Your task to perform on an android device: uninstall "Google Home" Image 0: 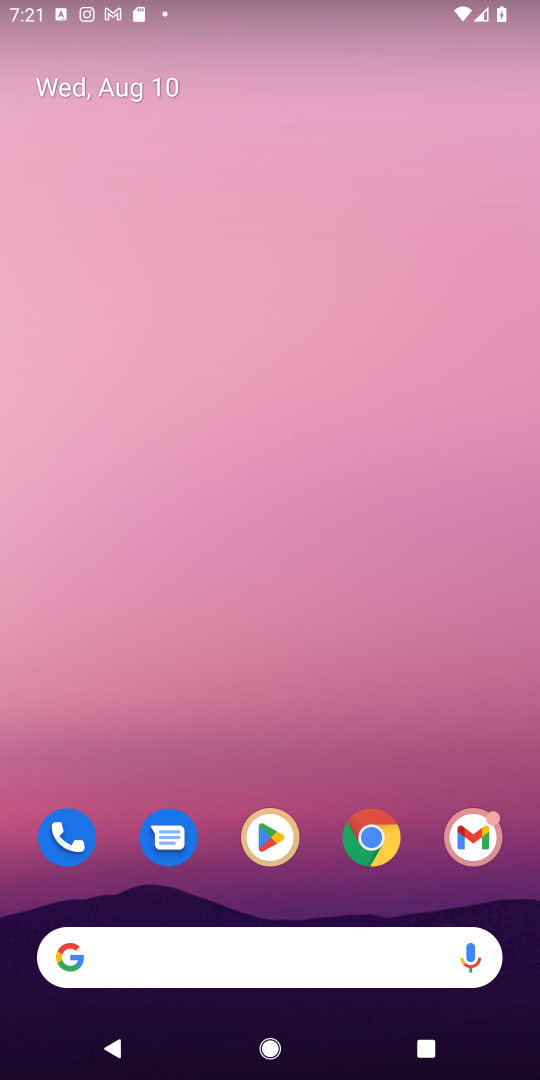
Step 0: click (276, 847)
Your task to perform on an android device: uninstall "Google Home" Image 1: 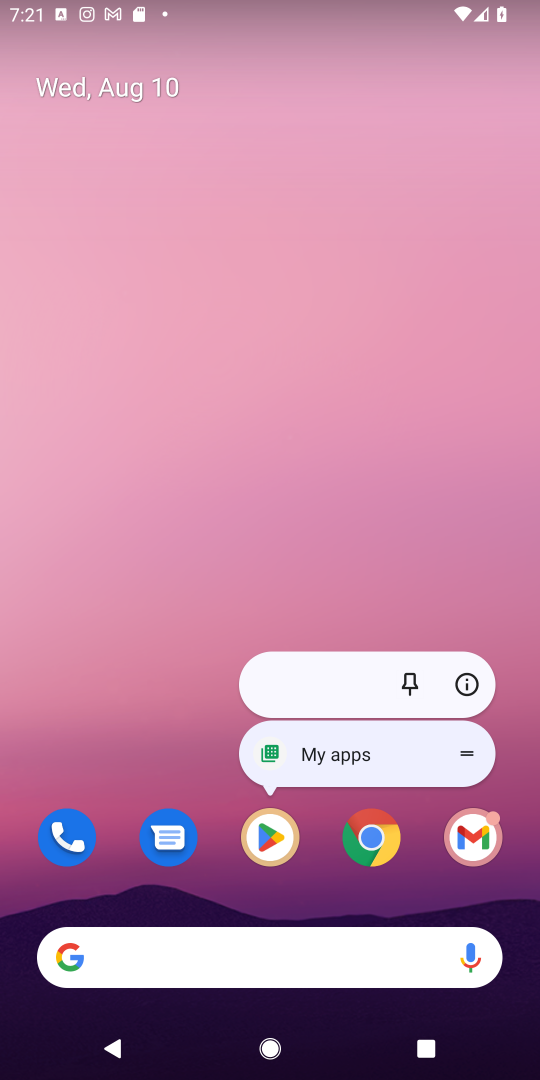
Step 1: click (274, 842)
Your task to perform on an android device: uninstall "Google Home" Image 2: 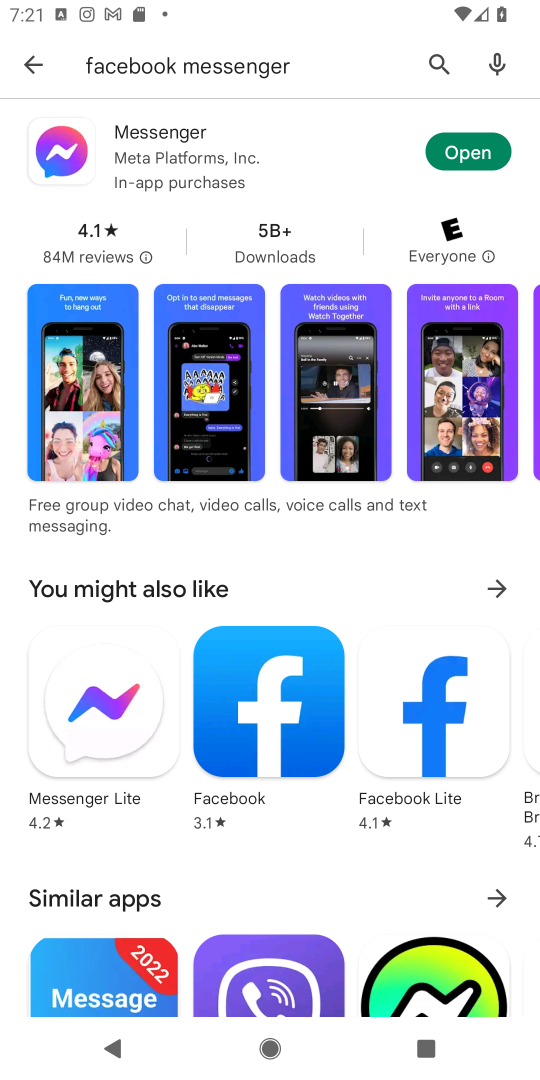
Step 2: click (435, 58)
Your task to perform on an android device: uninstall "Google Home" Image 3: 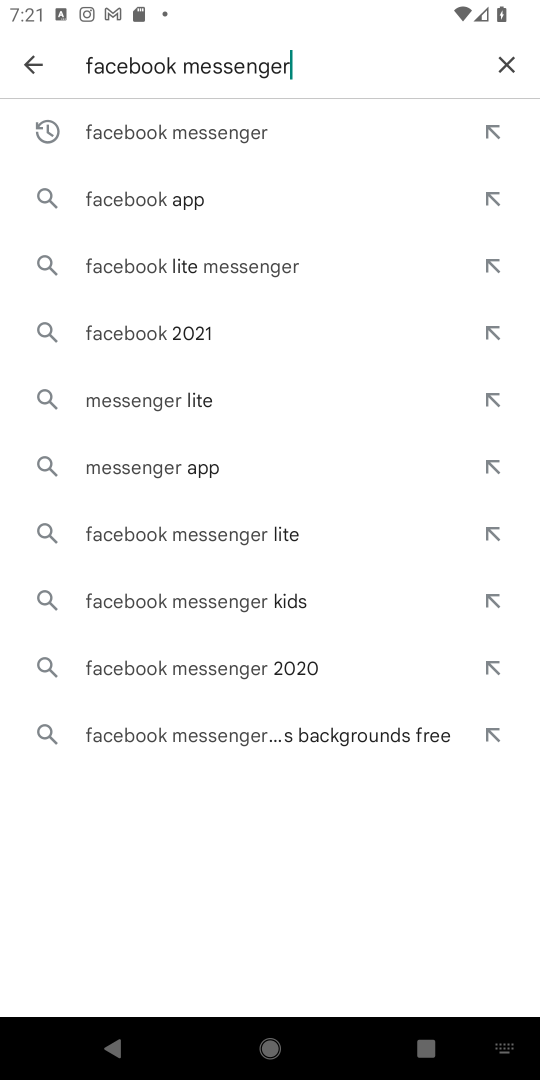
Step 3: click (504, 62)
Your task to perform on an android device: uninstall "Google Home" Image 4: 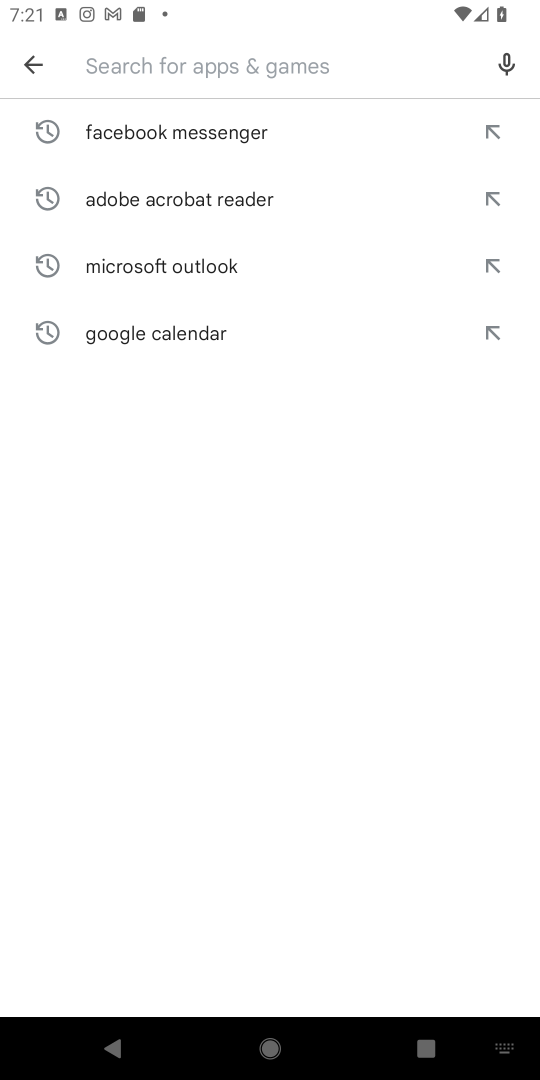
Step 4: type "Google Home"
Your task to perform on an android device: uninstall "Google Home" Image 5: 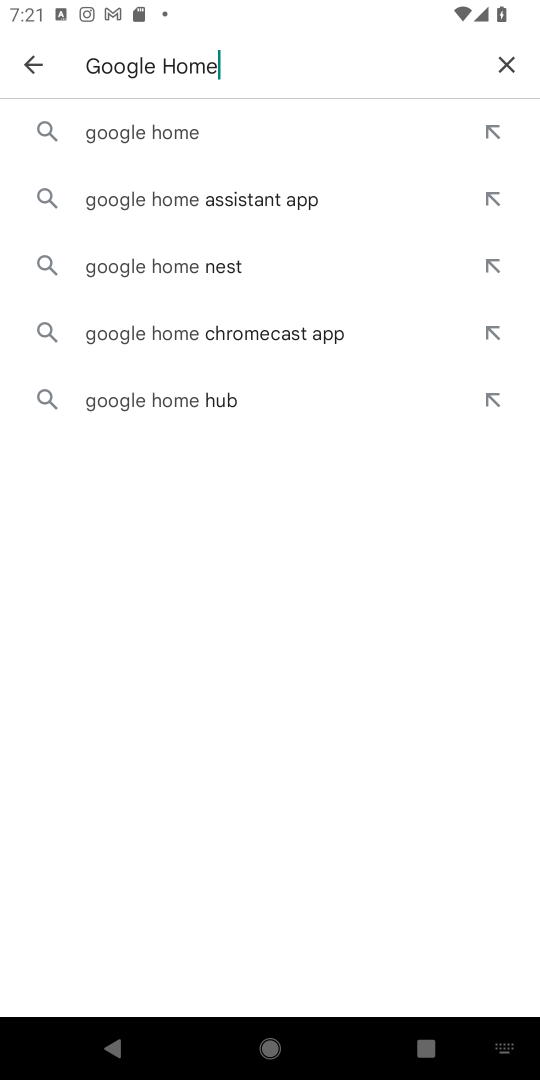
Step 5: click (156, 134)
Your task to perform on an android device: uninstall "Google Home" Image 6: 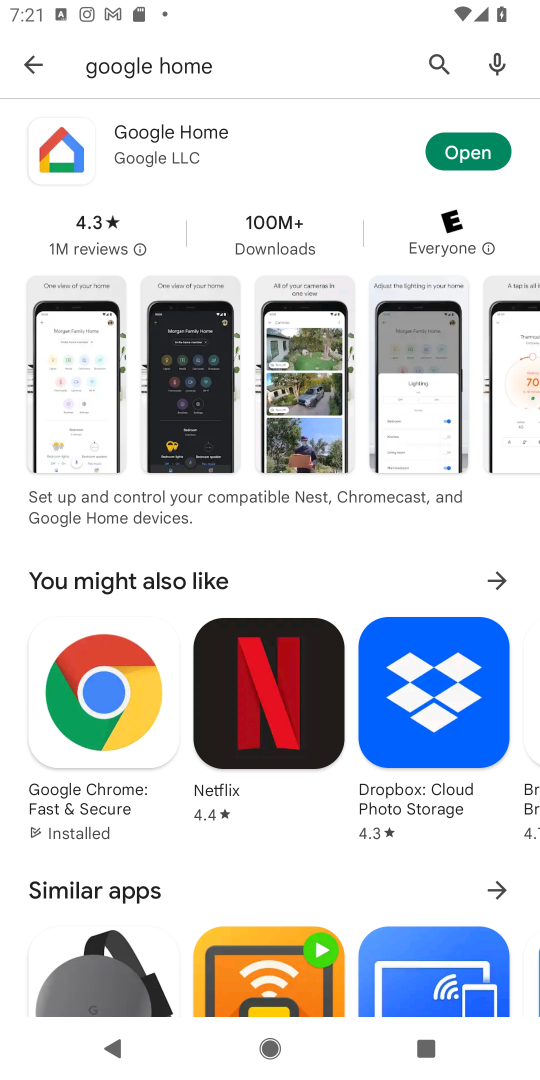
Step 6: click (150, 130)
Your task to perform on an android device: uninstall "Google Home" Image 7: 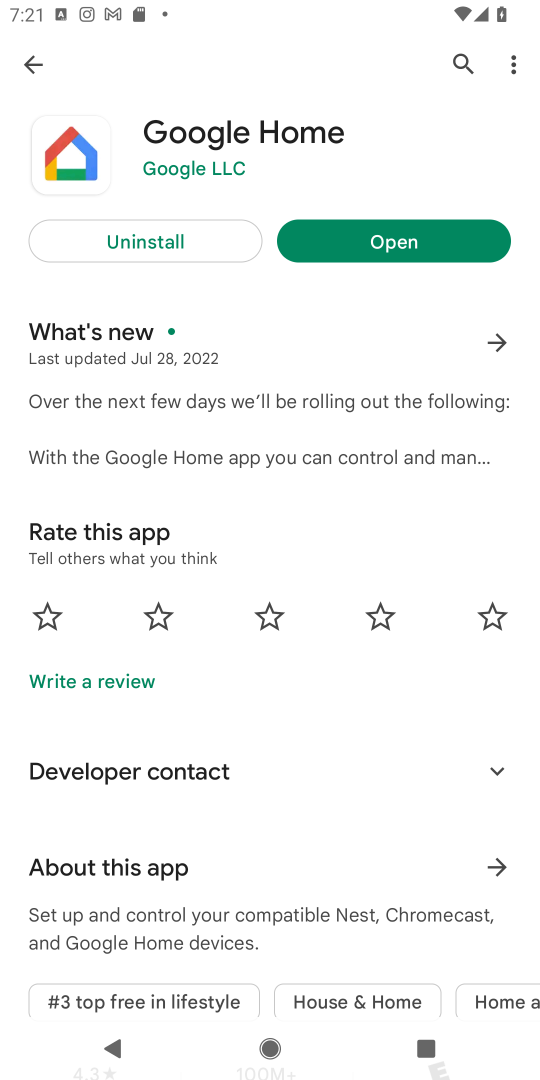
Step 7: click (192, 245)
Your task to perform on an android device: uninstall "Google Home" Image 8: 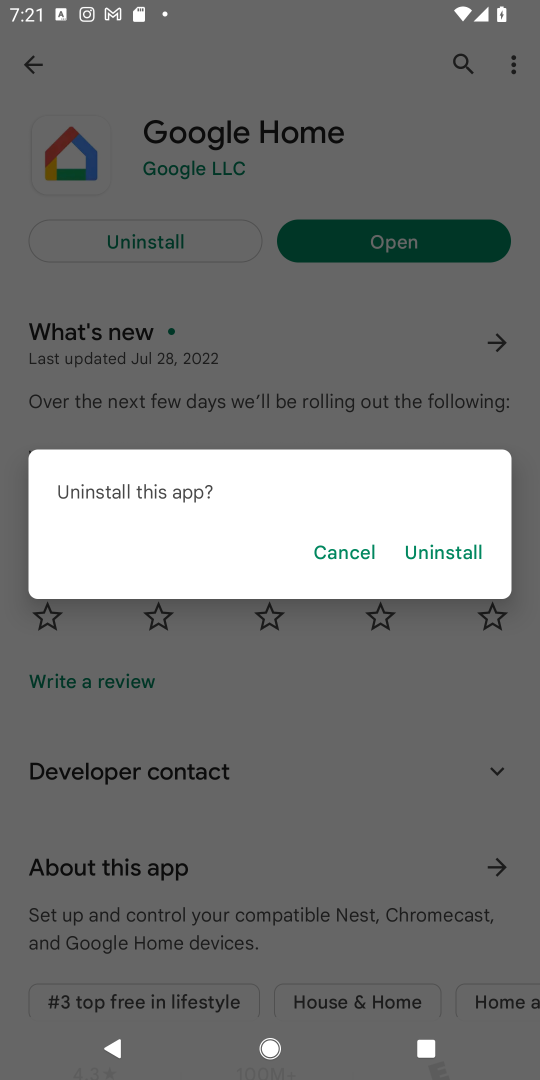
Step 8: click (436, 552)
Your task to perform on an android device: uninstall "Google Home" Image 9: 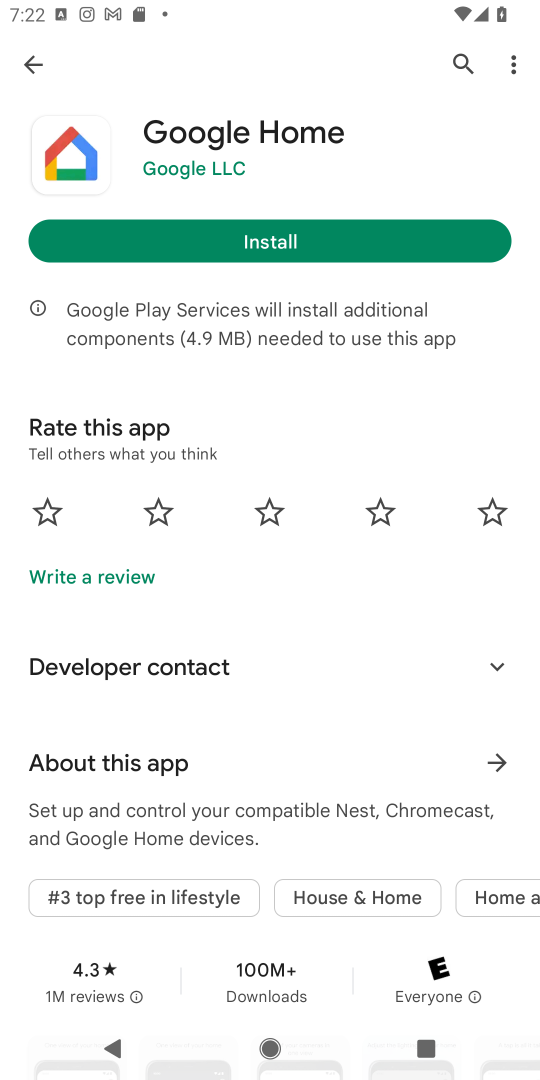
Step 9: task complete